Your task to perform on an android device: Open ESPN.com Image 0: 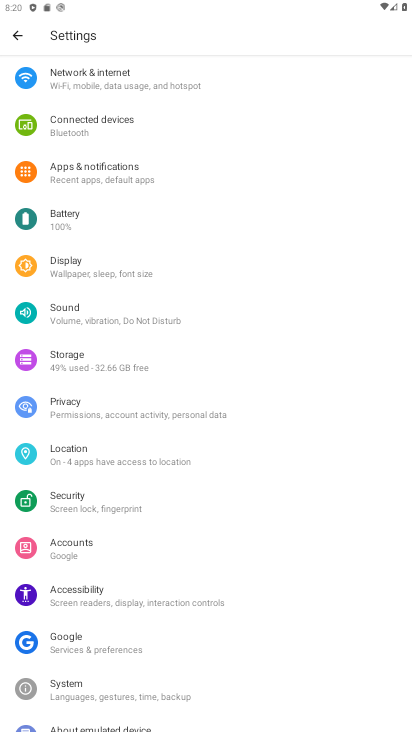
Step 0: press home button
Your task to perform on an android device: Open ESPN.com Image 1: 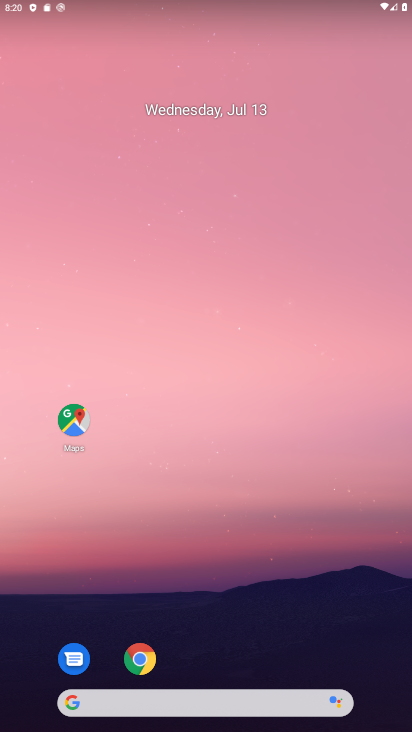
Step 1: click (150, 665)
Your task to perform on an android device: Open ESPN.com Image 2: 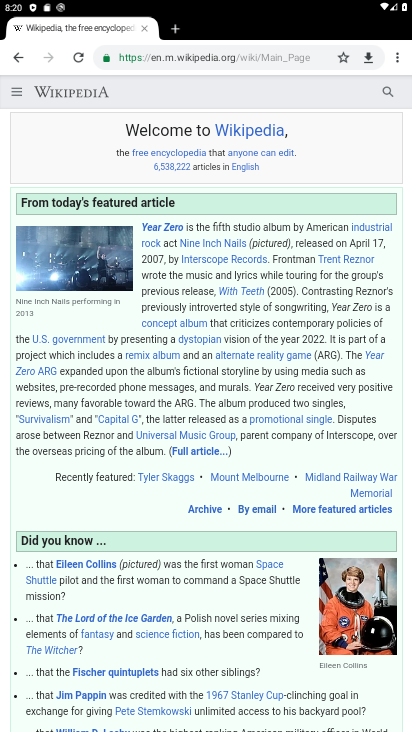
Step 2: click (168, 28)
Your task to perform on an android device: Open ESPN.com Image 3: 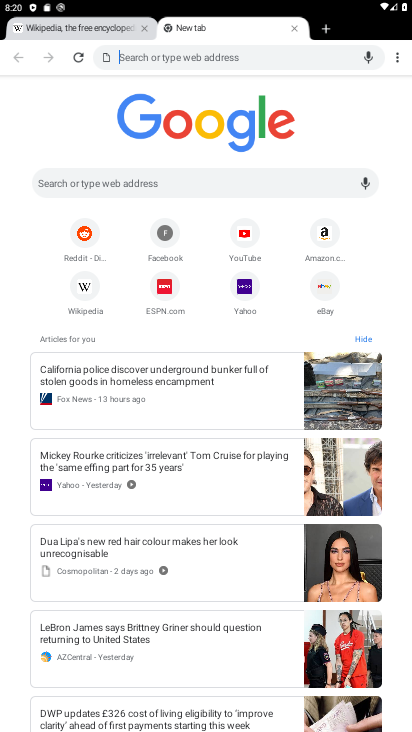
Step 3: click (141, 32)
Your task to perform on an android device: Open ESPN.com Image 4: 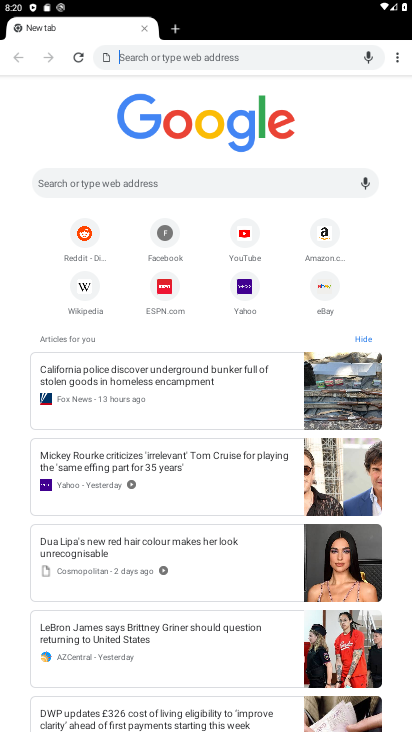
Step 4: click (165, 284)
Your task to perform on an android device: Open ESPN.com Image 5: 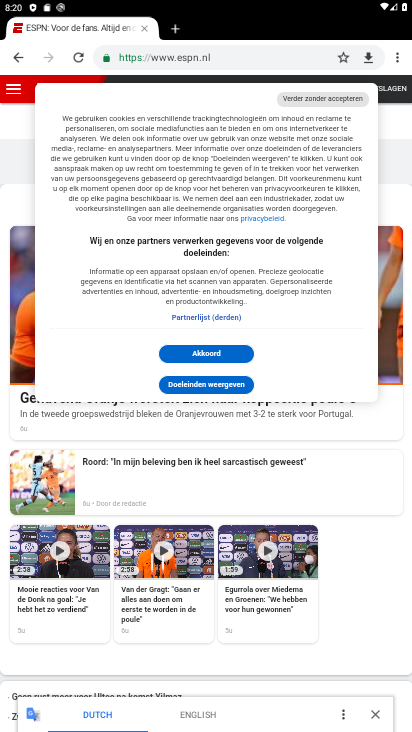
Step 5: task complete